Your task to perform on an android device: allow notifications from all sites in the chrome app Image 0: 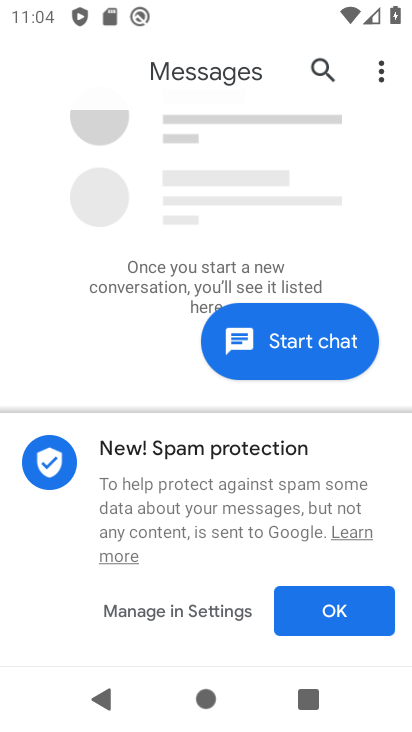
Step 0: press home button
Your task to perform on an android device: allow notifications from all sites in the chrome app Image 1: 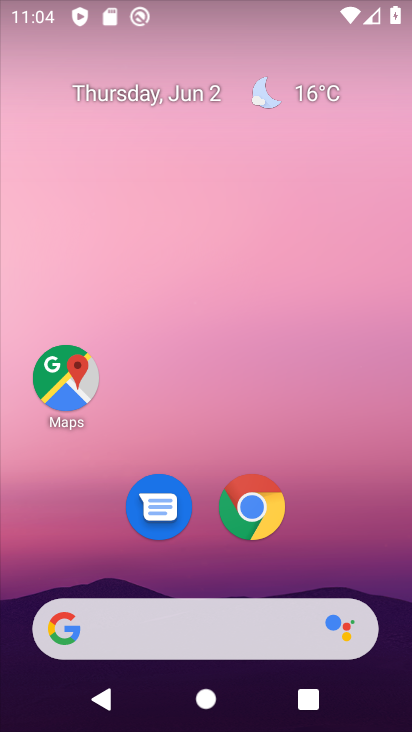
Step 1: drag from (360, 535) to (304, 114)
Your task to perform on an android device: allow notifications from all sites in the chrome app Image 2: 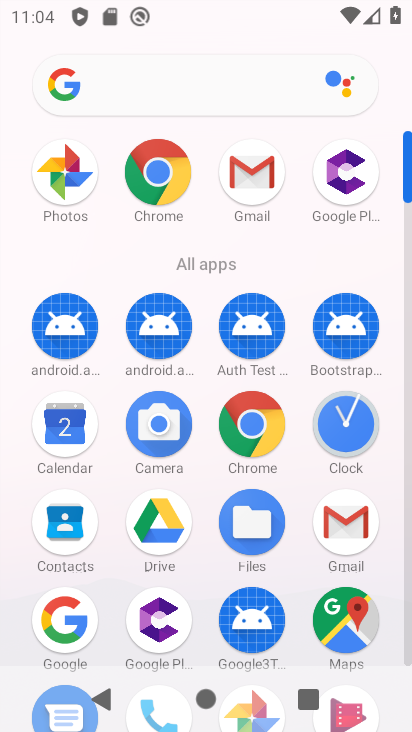
Step 2: click (272, 438)
Your task to perform on an android device: allow notifications from all sites in the chrome app Image 3: 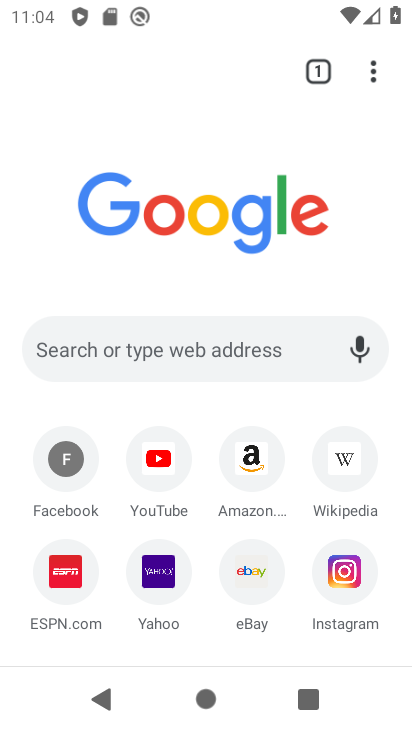
Step 3: drag from (389, 90) to (251, 524)
Your task to perform on an android device: allow notifications from all sites in the chrome app Image 4: 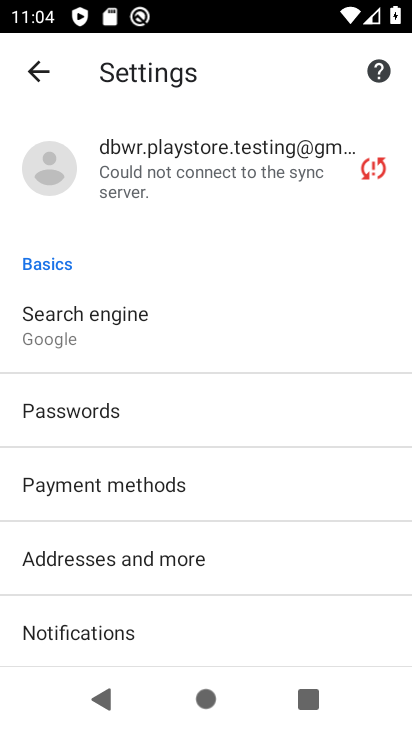
Step 4: drag from (279, 597) to (274, 316)
Your task to perform on an android device: allow notifications from all sites in the chrome app Image 5: 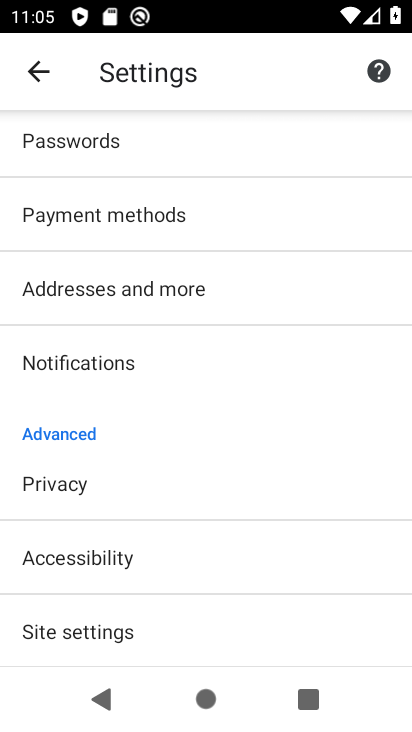
Step 5: click (171, 631)
Your task to perform on an android device: allow notifications from all sites in the chrome app Image 6: 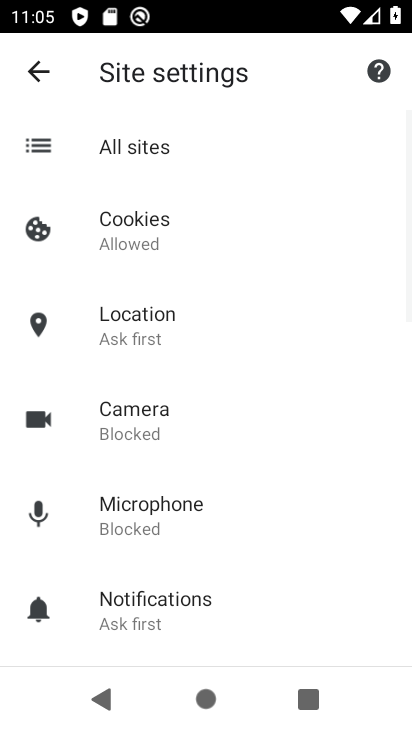
Step 6: click (204, 143)
Your task to perform on an android device: allow notifications from all sites in the chrome app Image 7: 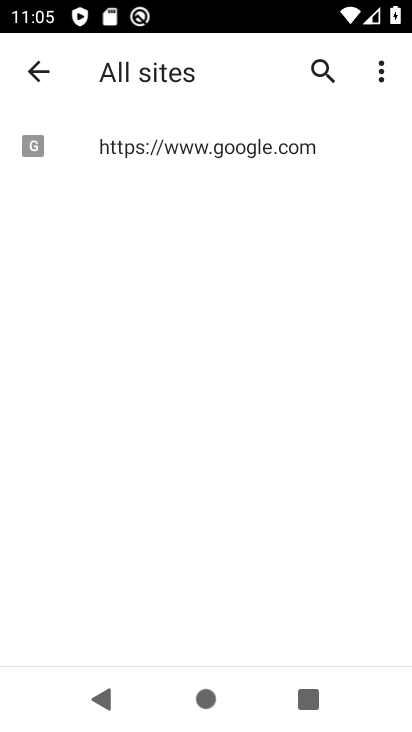
Step 7: click (121, 148)
Your task to perform on an android device: allow notifications from all sites in the chrome app Image 8: 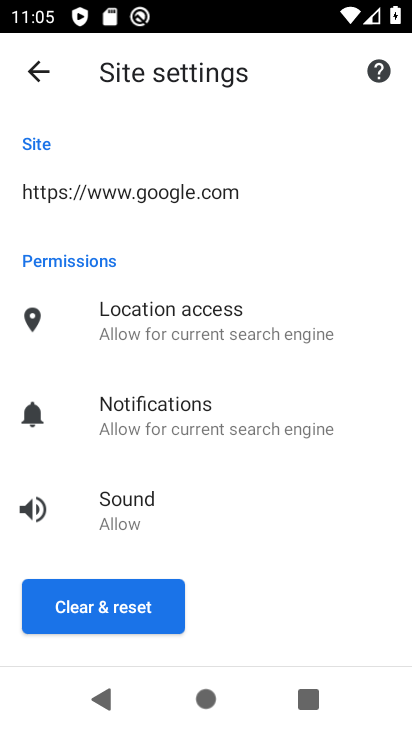
Step 8: task complete